Your task to perform on an android device: Toggle the flashlight Image 0: 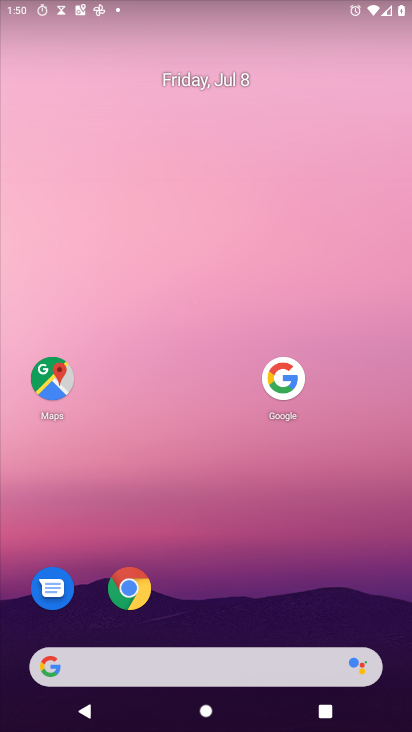
Step 0: drag from (269, 6) to (251, 506)
Your task to perform on an android device: Toggle the flashlight Image 1: 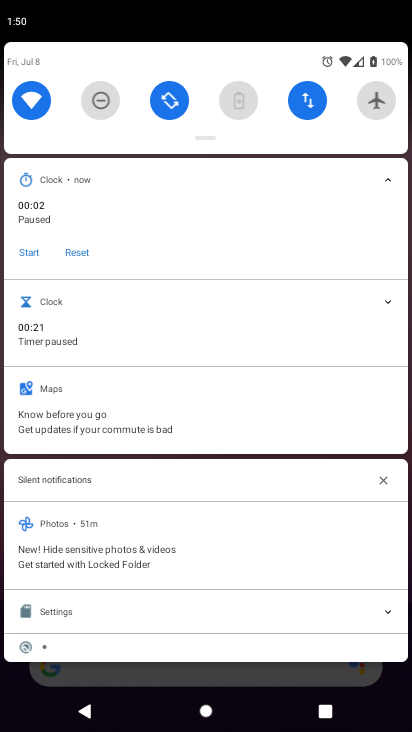
Step 1: task complete